Your task to perform on an android device: open app "DoorDash - Food Delivery" (install if not already installed) Image 0: 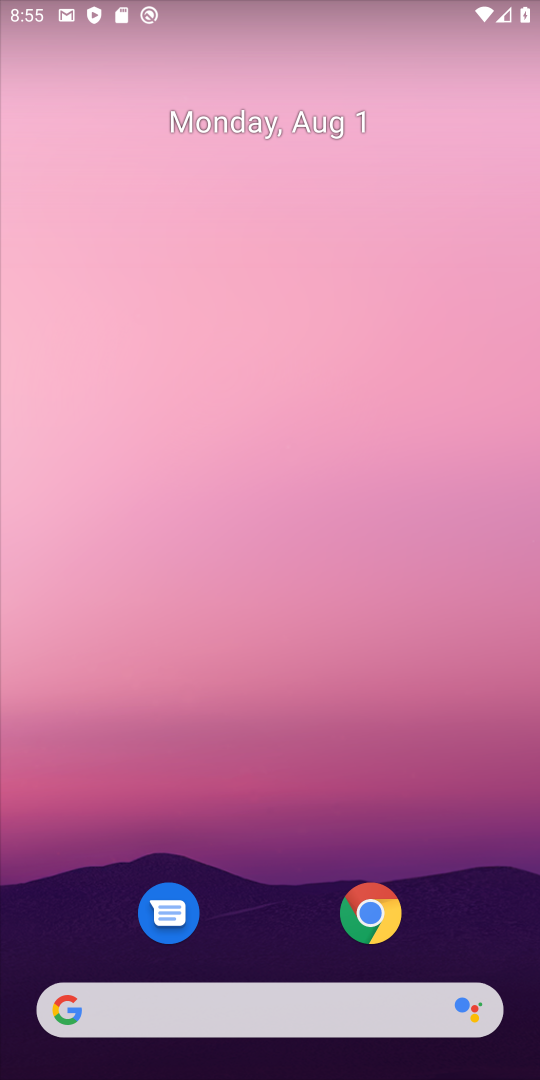
Step 0: drag from (224, 969) to (285, 126)
Your task to perform on an android device: open app "DoorDash - Food Delivery" (install if not already installed) Image 1: 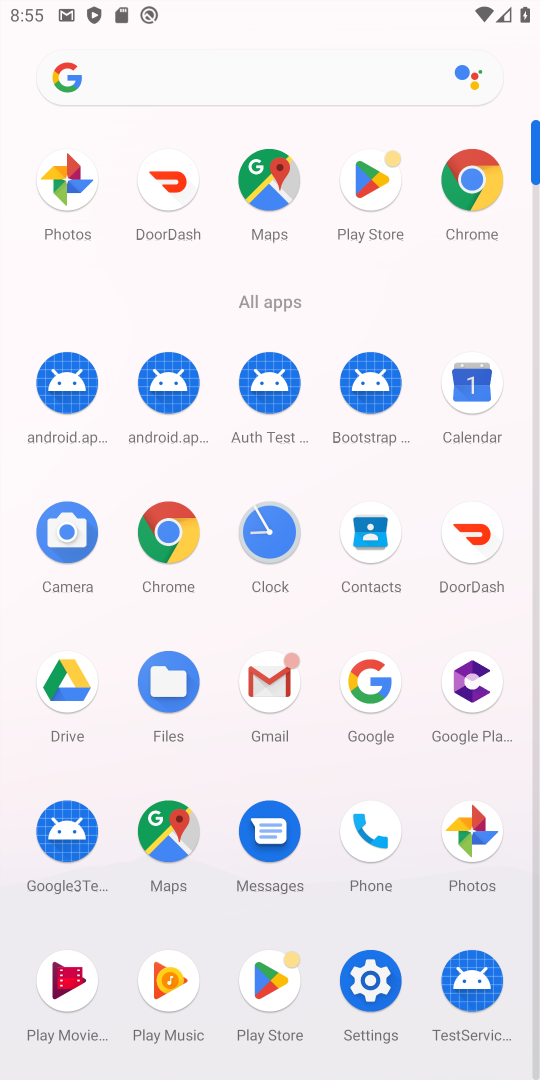
Step 1: click (281, 987)
Your task to perform on an android device: open app "DoorDash - Food Delivery" (install if not already installed) Image 2: 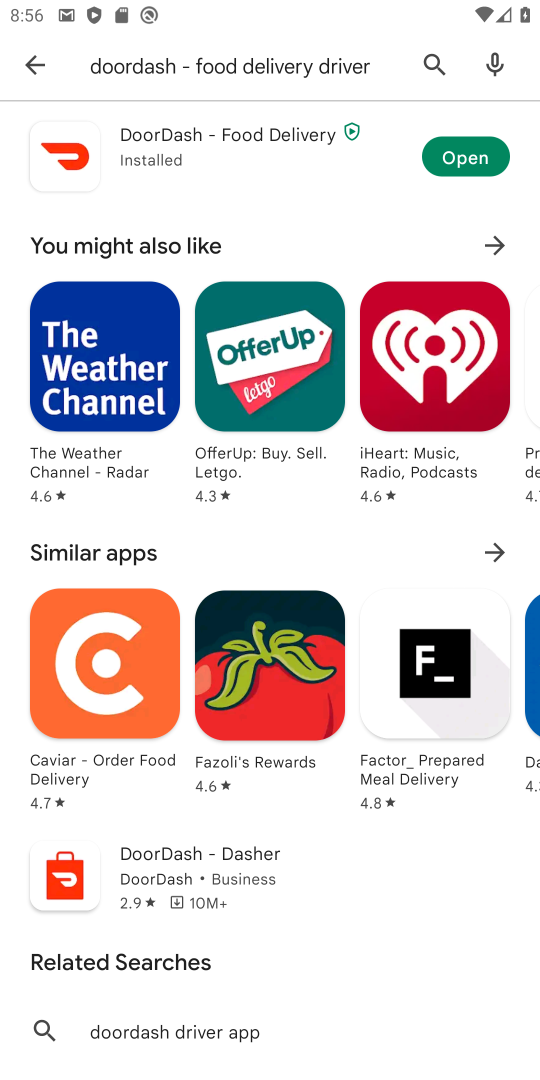
Step 2: click (497, 152)
Your task to perform on an android device: open app "DoorDash - Food Delivery" (install if not already installed) Image 3: 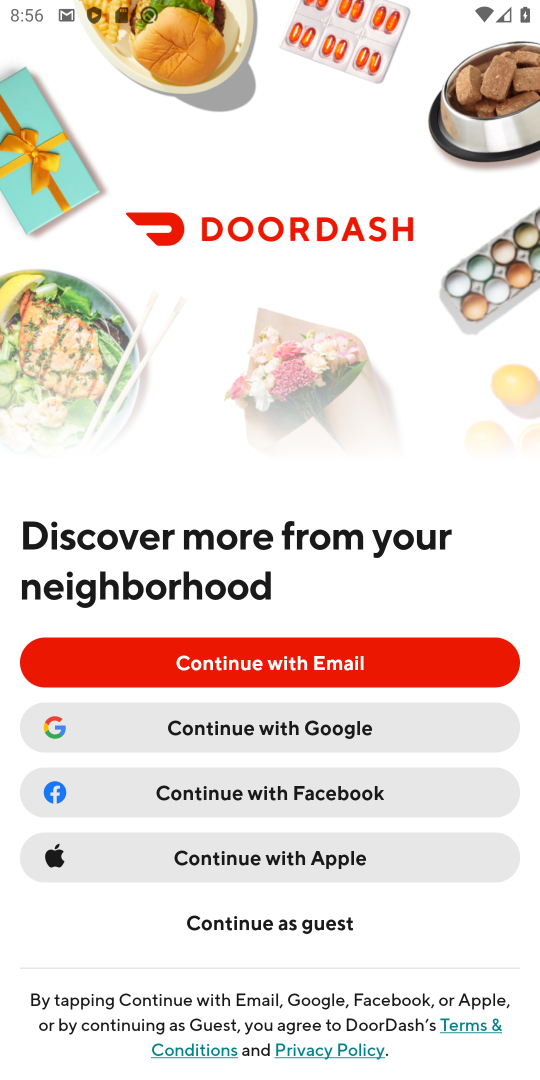
Step 3: task complete